Your task to perform on an android device: set an alarm Image 0: 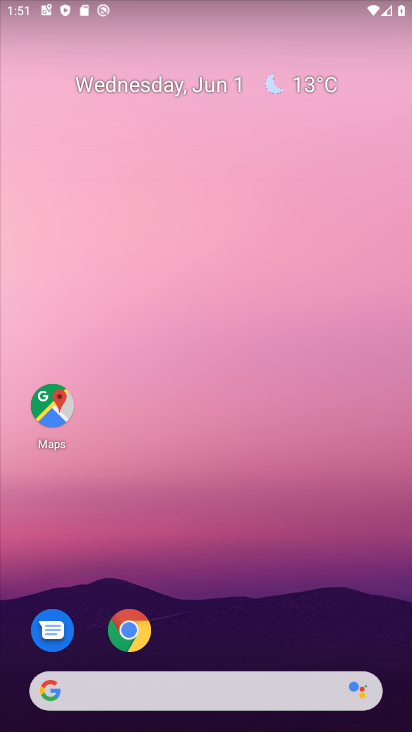
Step 0: press home button
Your task to perform on an android device: set an alarm Image 1: 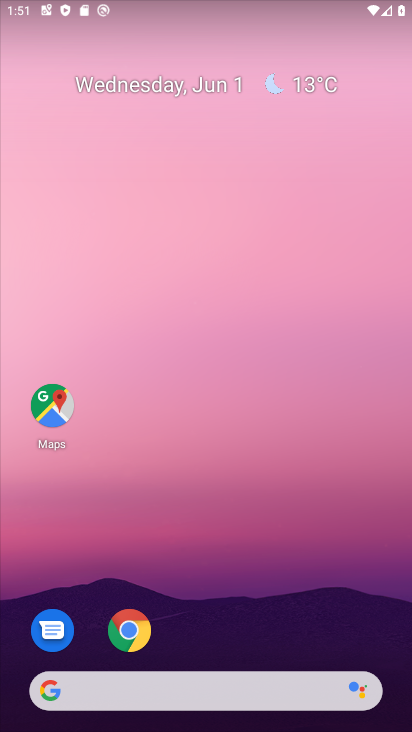
Step 1: drag from (206, 645) to (173, 135)
Your task to perform on an android device: set an alarm Image 2: 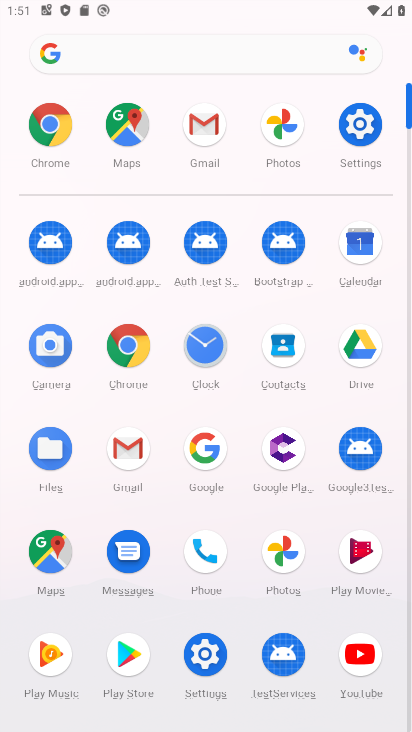
Step 2: click (203, 339)
Your task to perform on an android device: set an alarm Image 3: 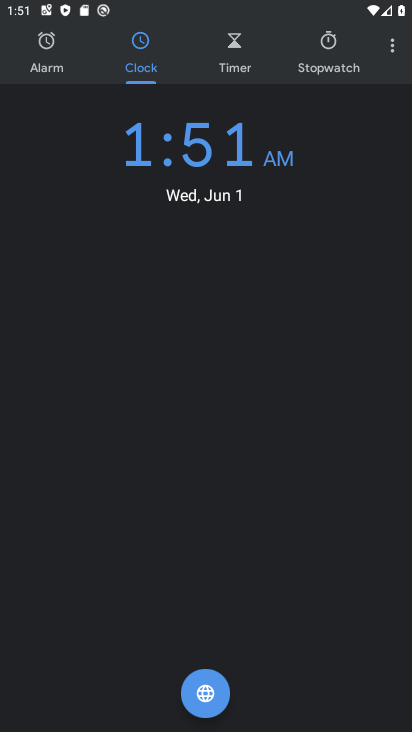
Step 3: click (43, 39)
Your task to perform on an android device: set an alarm Image 4: 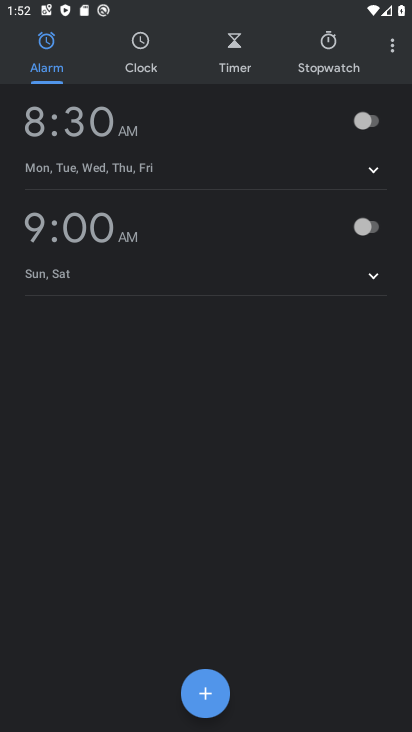
Step 4: click (369, 121)
Your task to perform on an android device: set an alarm Image 5: 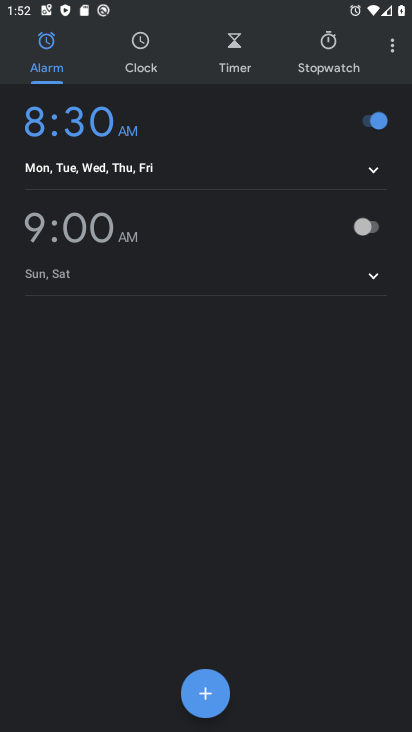
Step 5: task complete